Your task to perform on an android device: Open calendar and show me the fourth week of next month Image 0: 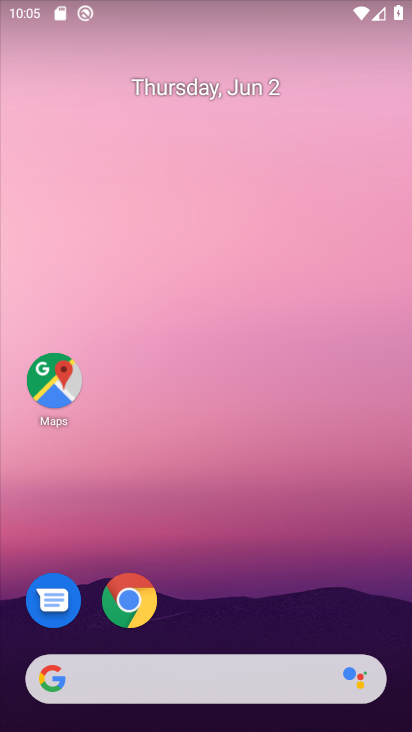
Step 0: drag from (222, 574) to (194, 49)
Your task to perform on an android device: Open calendar and show me the fourth week of next month Image 1: 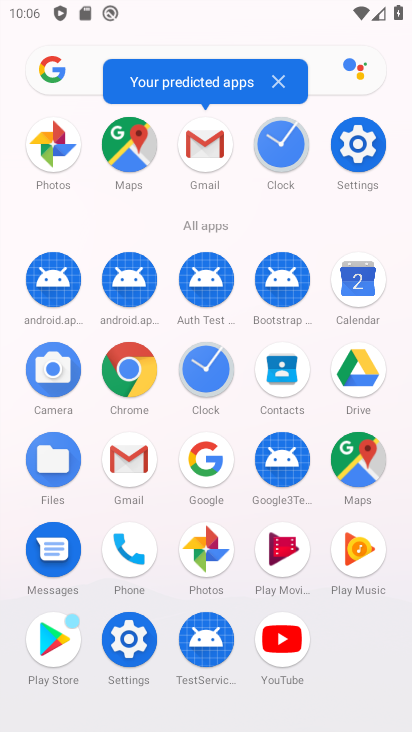
Step 1: click (358, 285)
Your task to perform on an android device: Open calendar and show me the fourth week of next month Image 2: 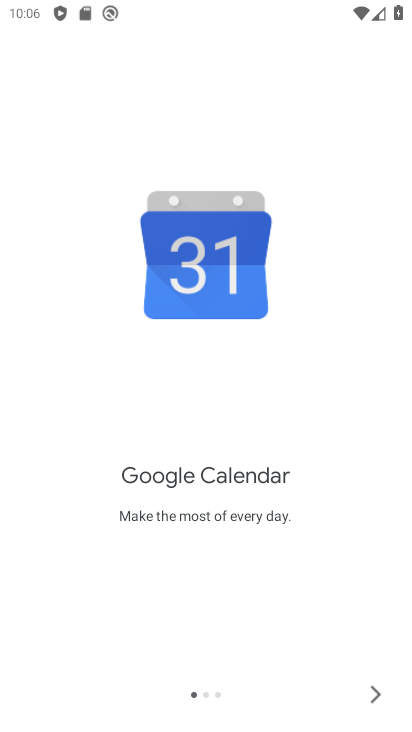
Step 2: click (372, 698)
Your task to perform on an android device: Open calendar and show me the fourth week of next month Image 3: 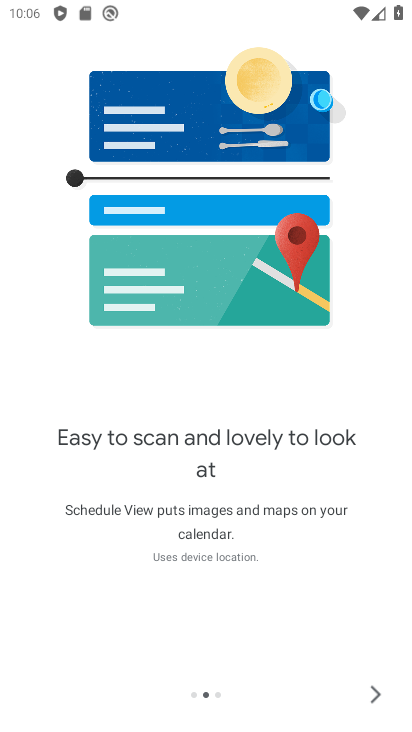
Step 3: click (372, 698)
Your task to perform on an android device: Open calendar and show me the fourth week of next month Image 4: 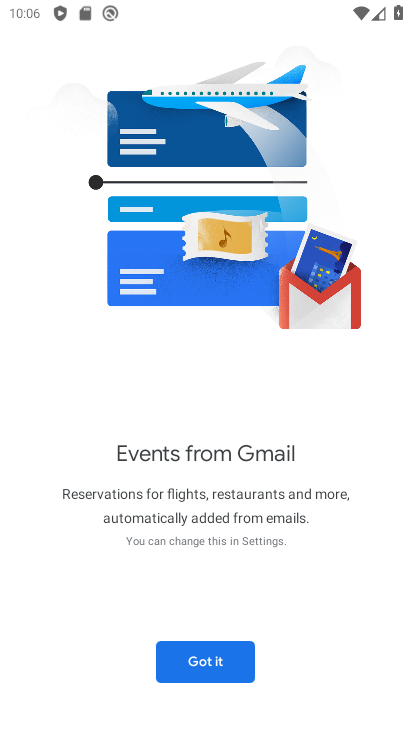
Step 4: click (211, 659)
Your task to perform on an android device: Open calendar and show me the fourth week of next month Image 5: 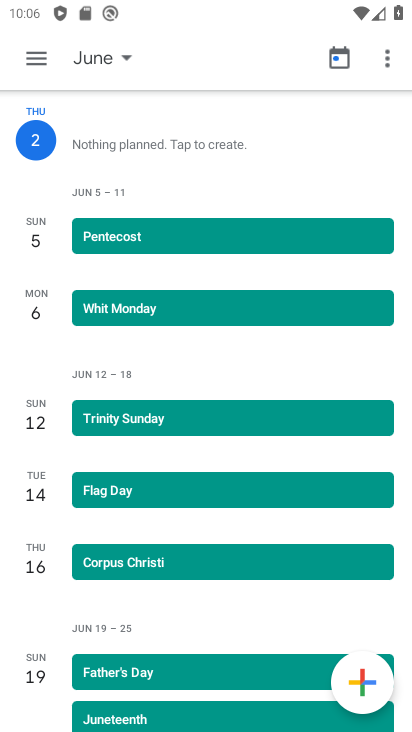
Step 5: click (122, 64)
Your task to perform on an android device: Open calendar and show me the fourth week of next month Image 6: 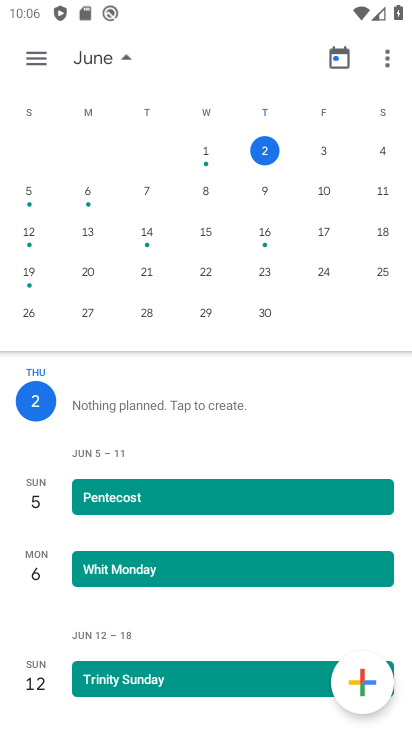
Step 6: drag from (392, 331) to (46, 283)
Your task to perform on an android device: Open calendar and show me the fourth week of next month Image 7: 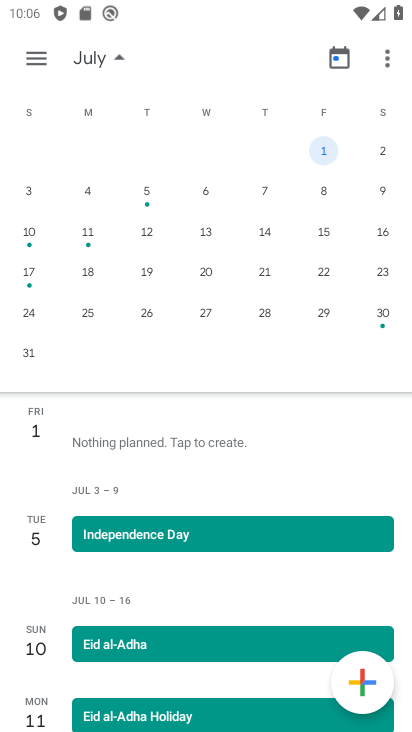
Step 7: click (269, 272)
Your task to perform on an android device: Open calendar and show me the fourth week of next month Image 8: 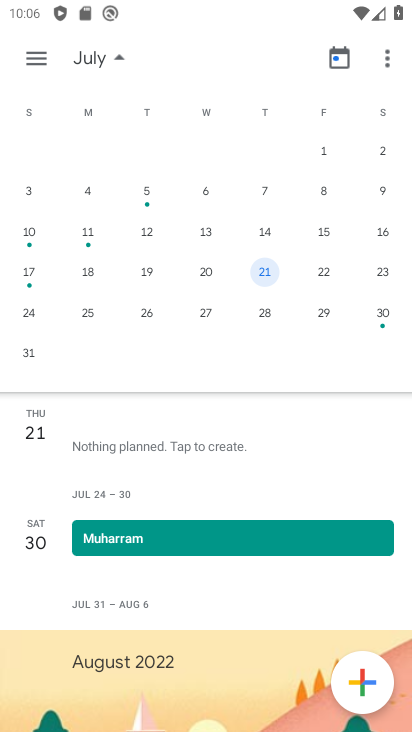
Step 8: task complete